Your task to perform on an android device: turn on the 24-hour format for clock Image 0: 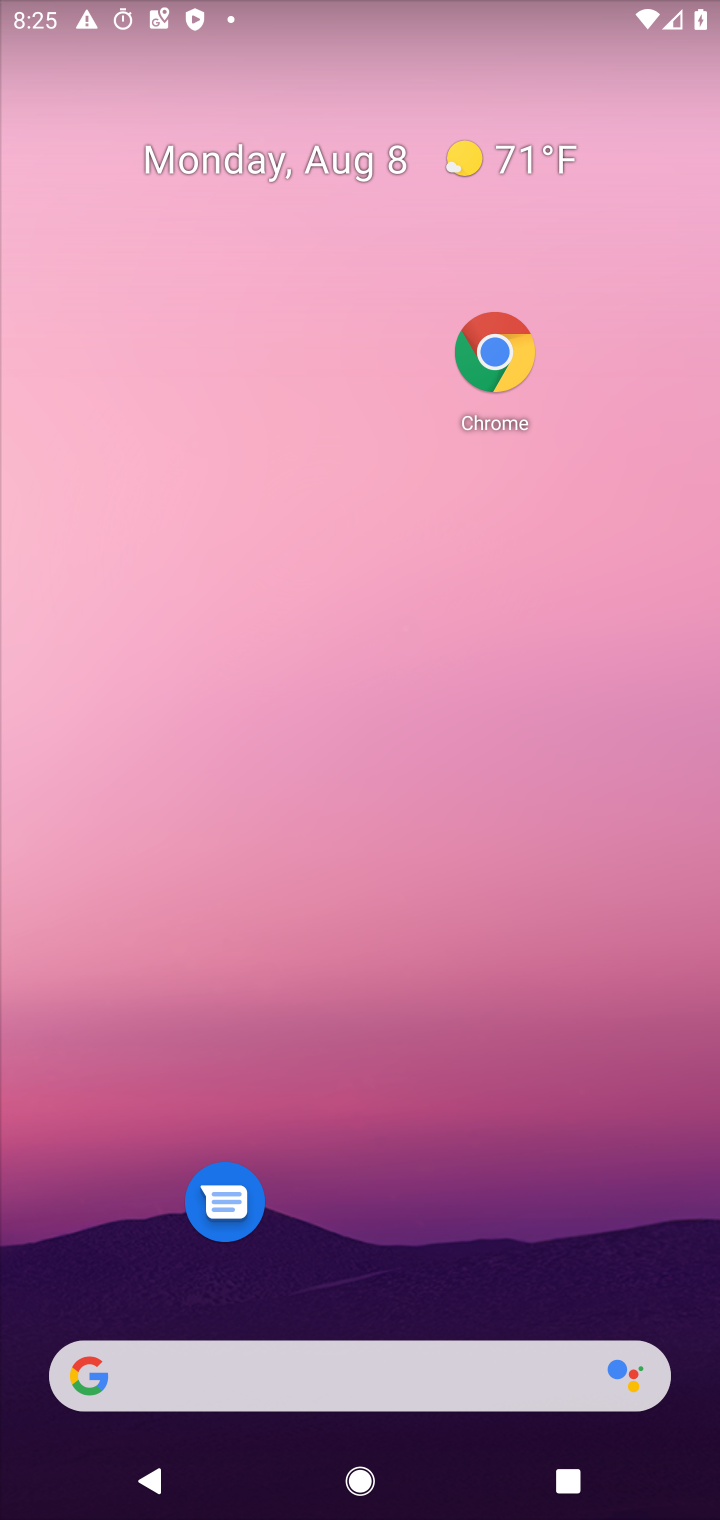
Step 0: drag from (374, 1323) to (360, 229)
Your task to perform on an android device: turn on the 24-hour format for clock Image 1: 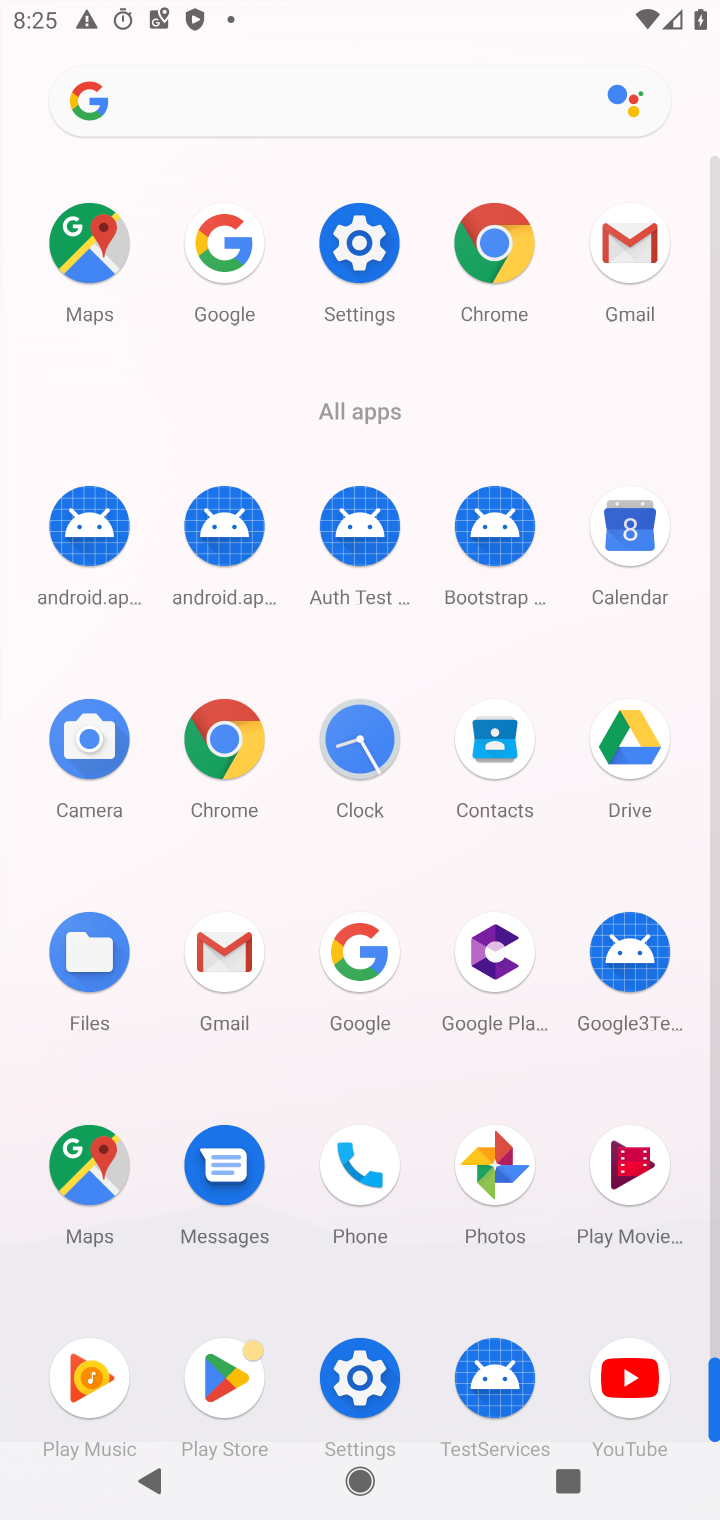
Step 1: click (358, 765)
Your task to perform on an android device: turn on the 24-hour format for clock Image 2: 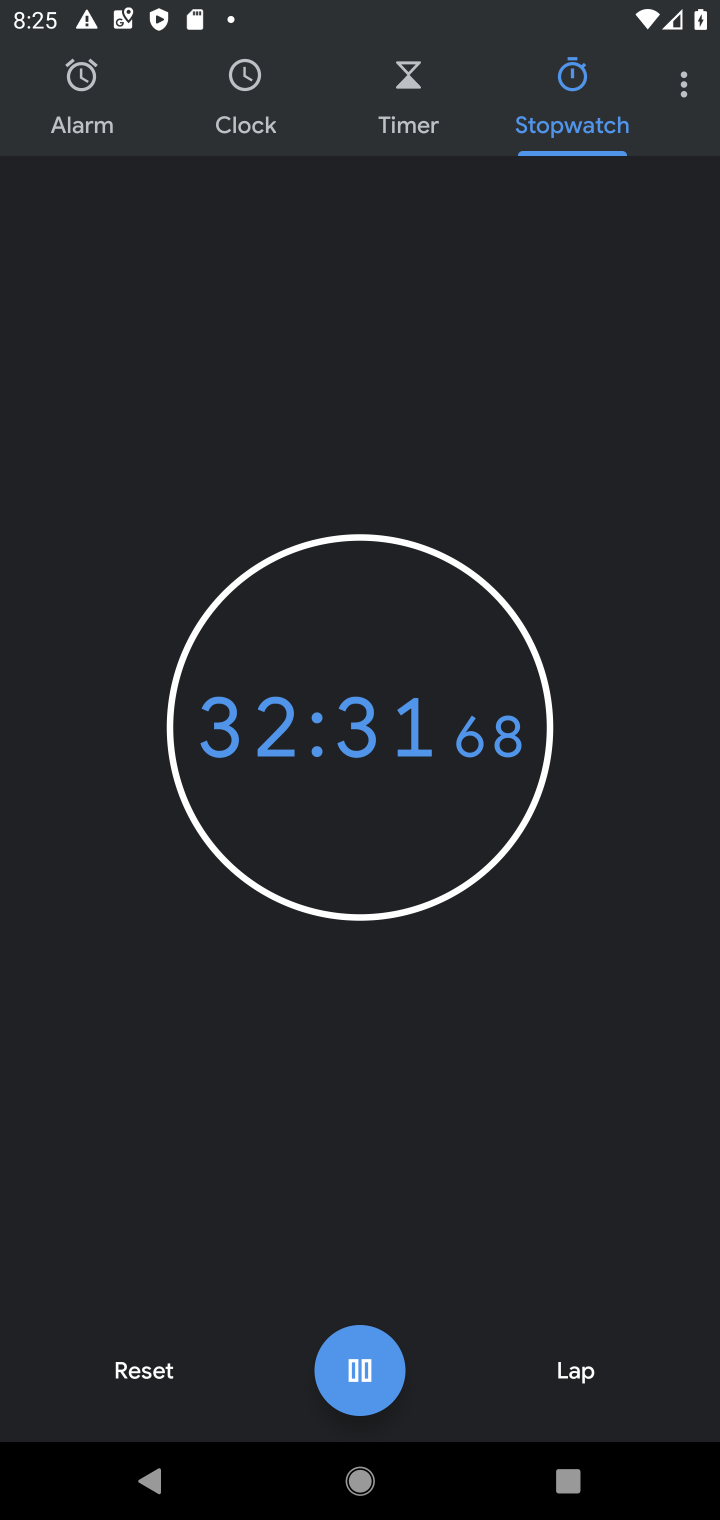
Step 2: click (672, 92)
Your task to perform on an android device: turn on the 24-hour format for clock Image 3: 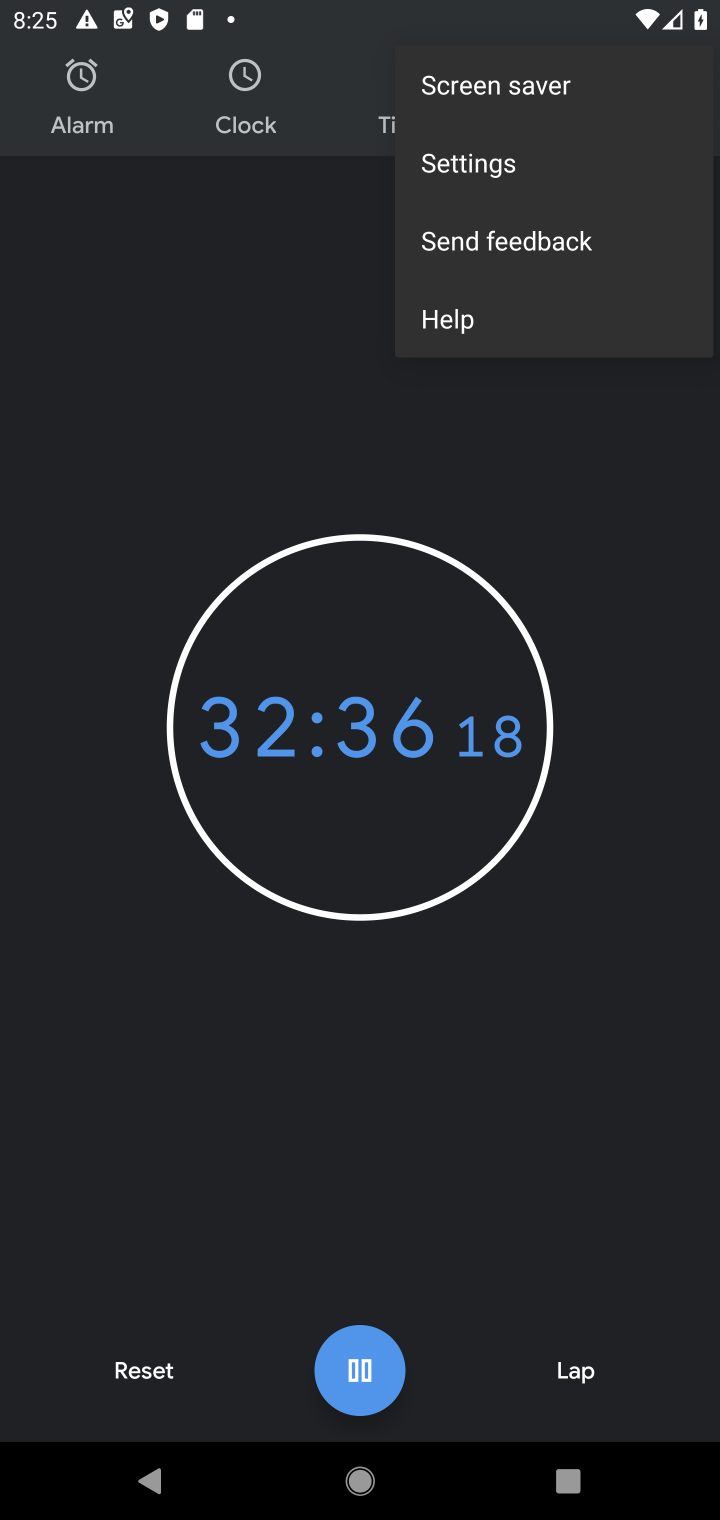
Step 3: click (497, 178)
Your task to perform on an android device: turn on the 24-hour format for clock Image 4: 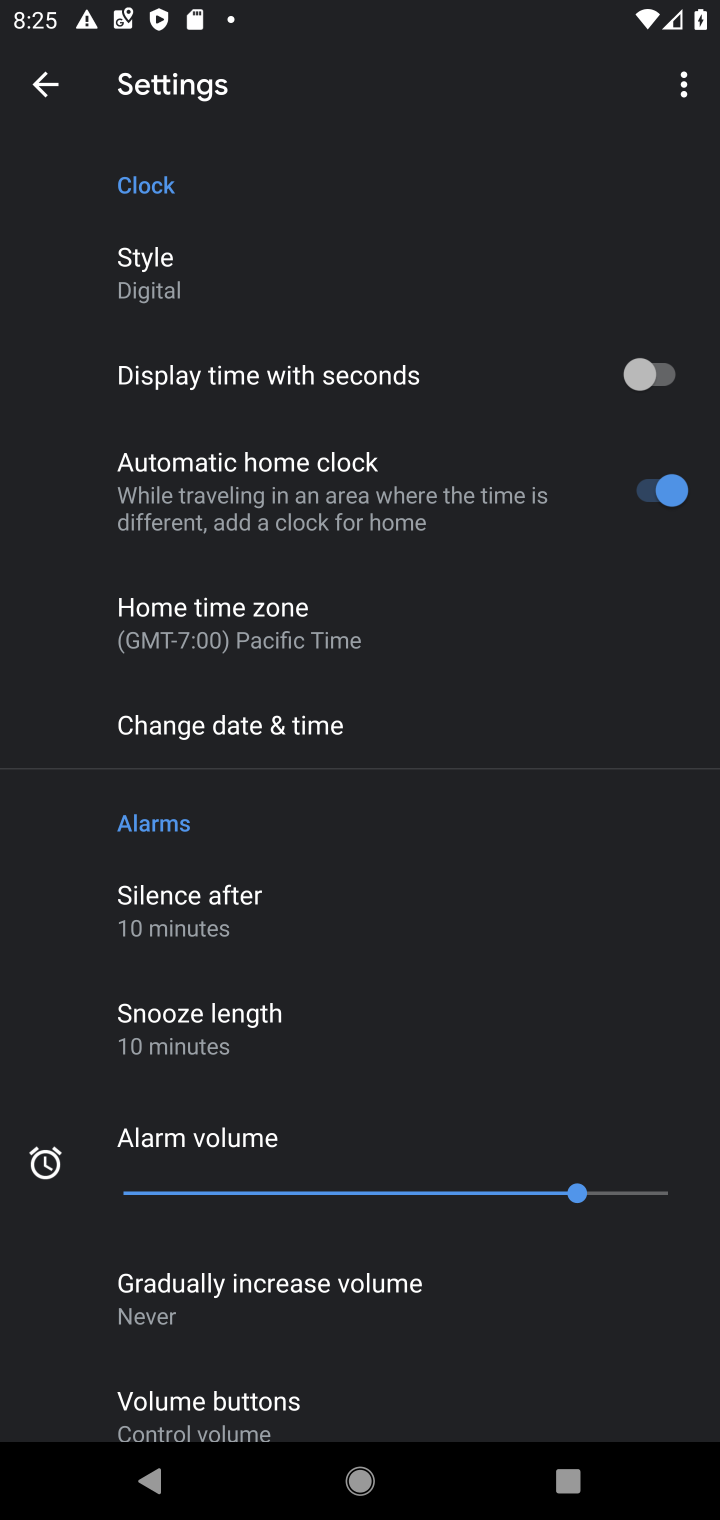
Step 4: drag from (364, 1264) to (356, 542)
Your task to perform on an android device: turn on the 24-hour format for clock Image 5: 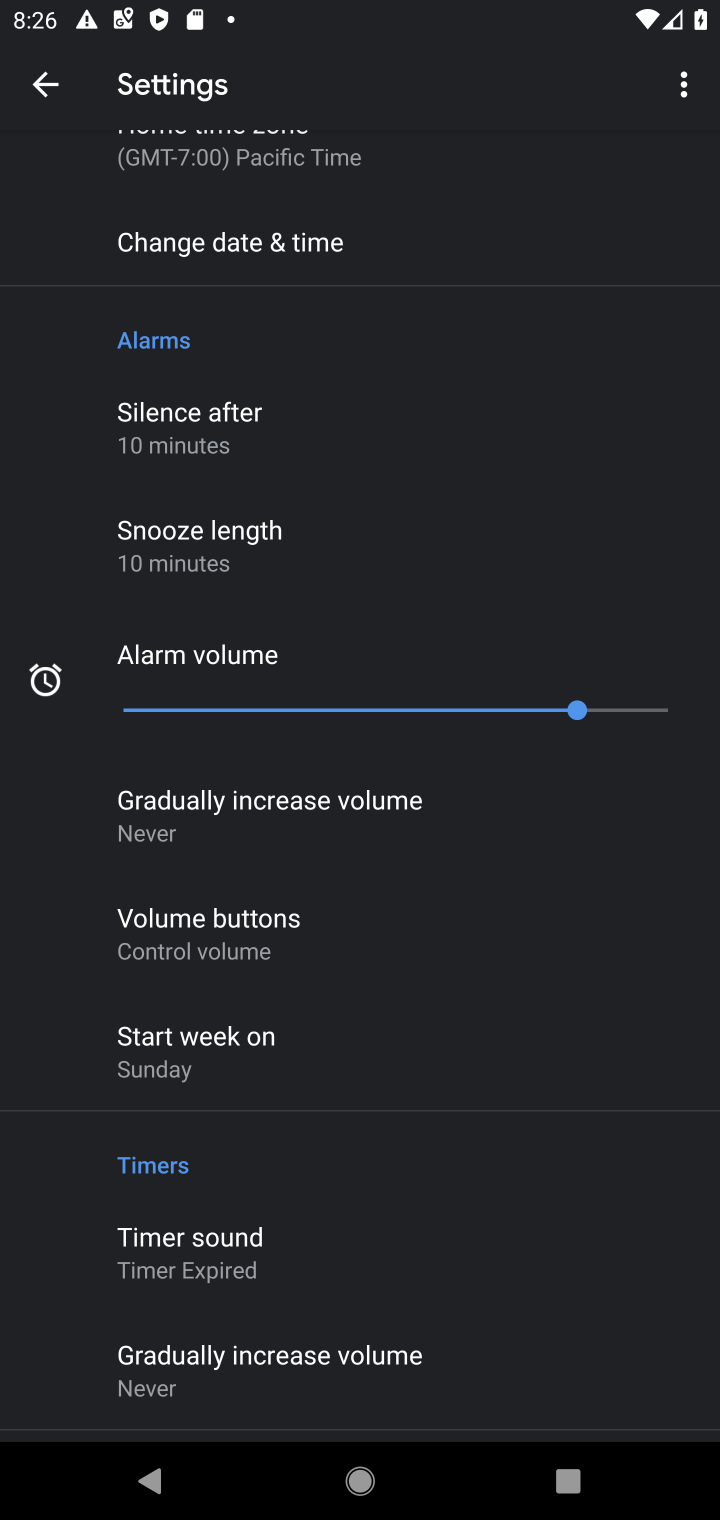
Step 5: click (329, 242)
Your task to perform on an android device: turn on the 24-hour format for clock Image 6: 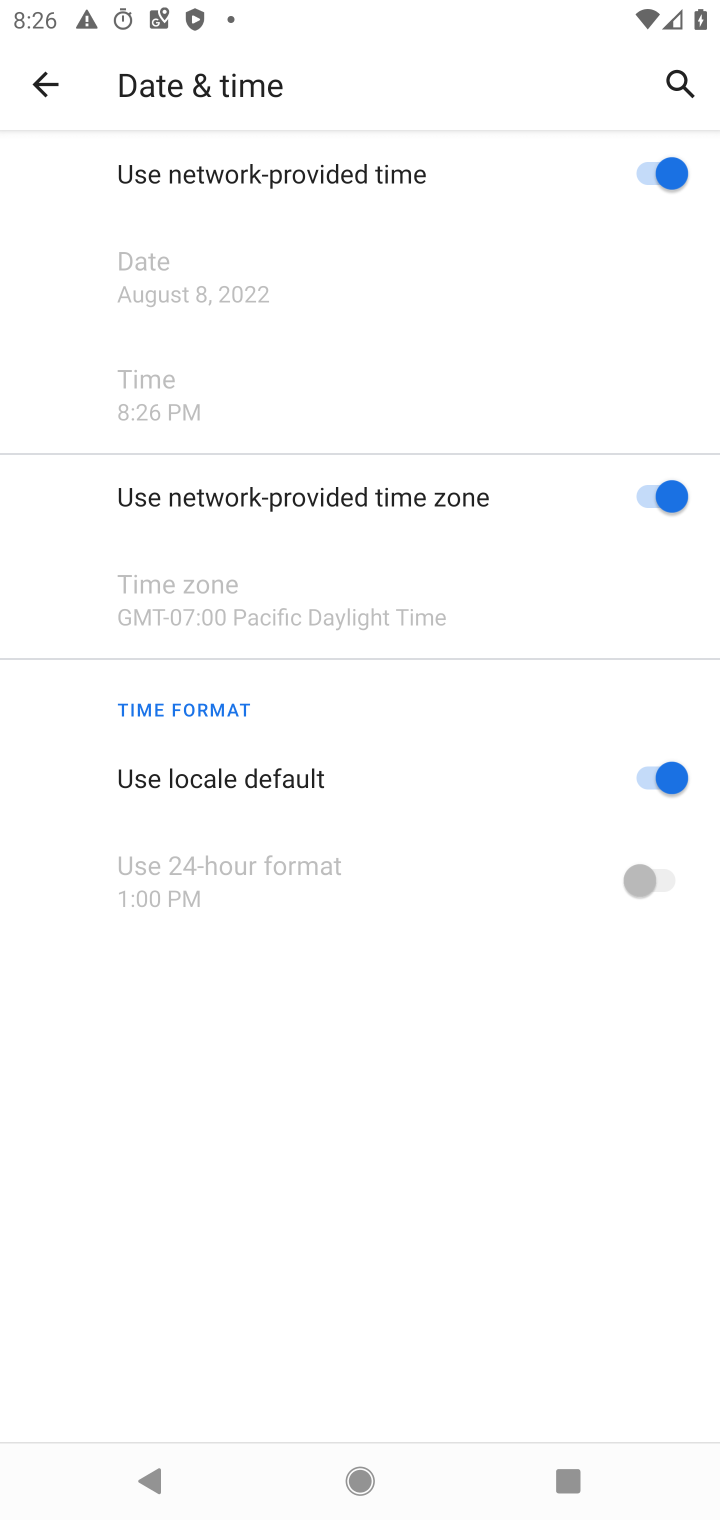
Step 6: task complete